Your task to perform on an android device: Go to settings Image 0: 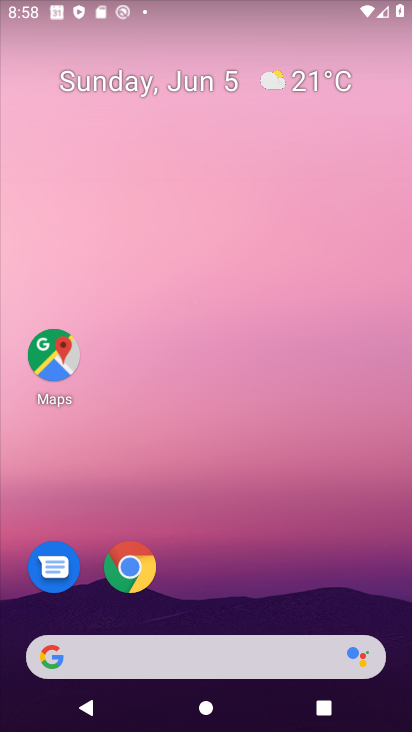
Step 0: drag from (225, 637) to (225, 309)
Your task to perform on an android device: Go to settings Image 1: 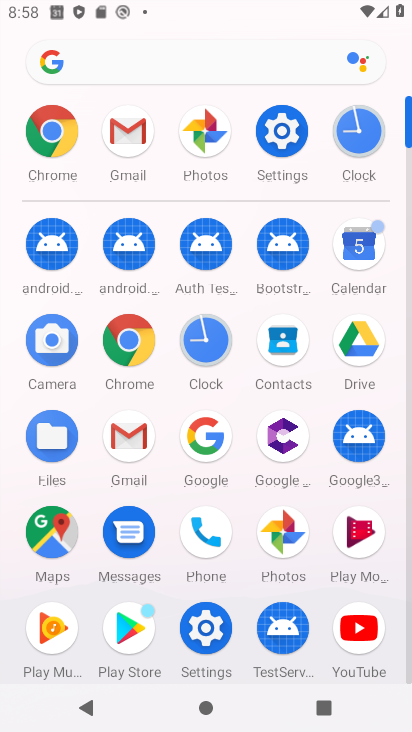
Step 1: click (295, 127)
Your task to perform on an android device: Go to settings Image 2: 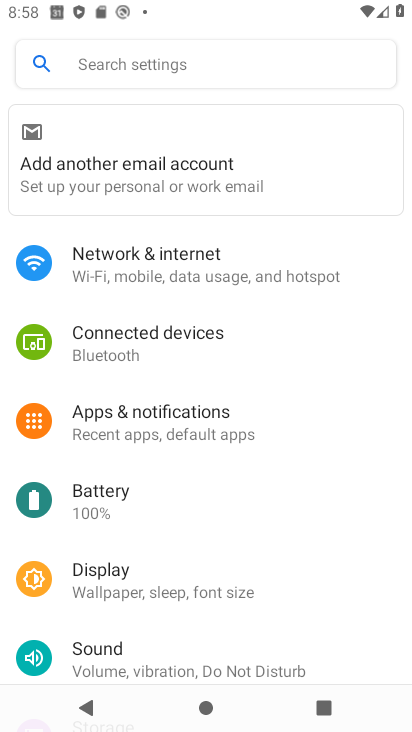
Step 2: task complete